Your task to perform on an android device: turn off priority inbox in the gmail app Image 0: 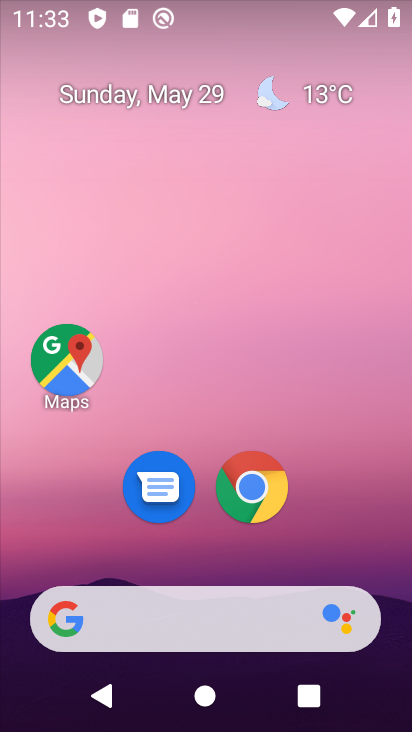
Step 0: drag from (378, 528) to (406, 125)
Your task to perform on an android device: turn off priority inbox in the gmail app Image 1: 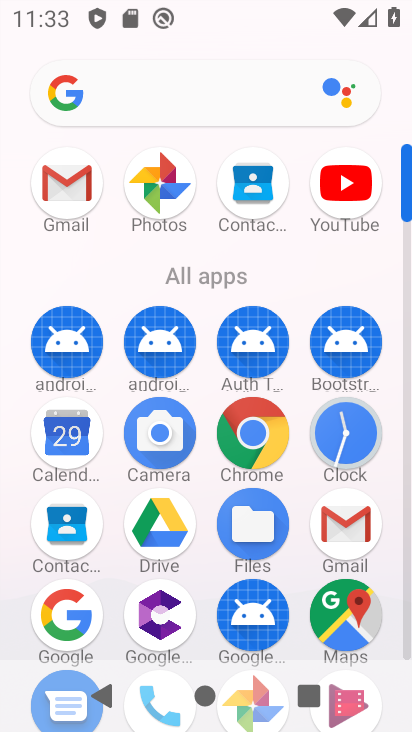
Step 1: click (350, 502)
Your task to perform on an android device: turn off priority inbox in the gmail app Image 2: 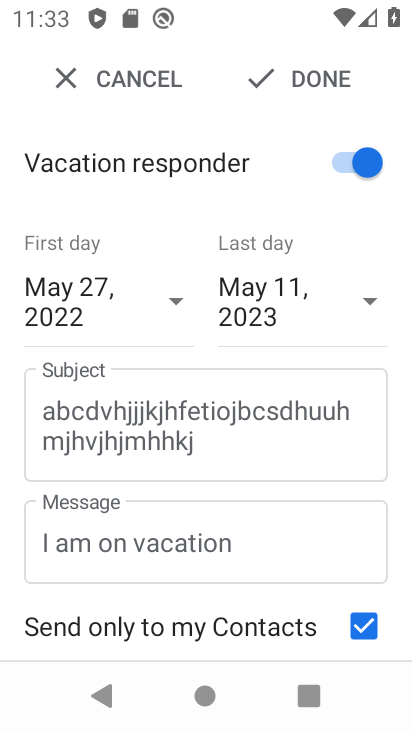
Step 2: click (65, 80)
Your task to perform on an android device: turn off priority inbox in the gmail app Image 3: 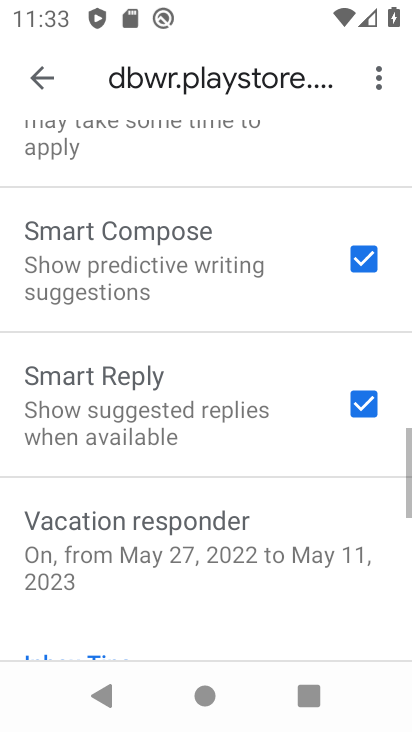
Step 3: task complete